Your task to perform on an android device: check android version Image 0: 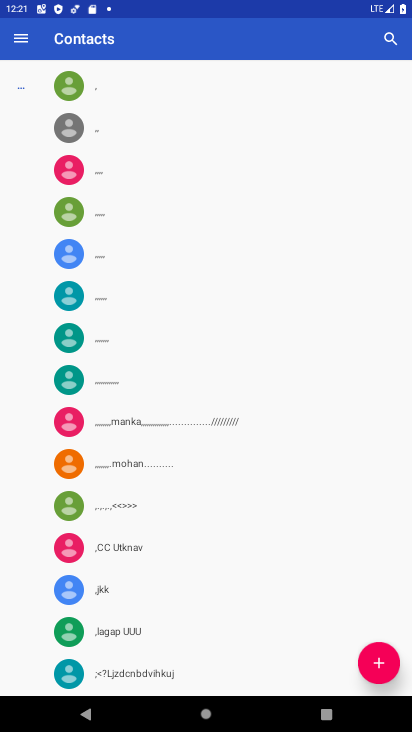
Step 0: press home button
Your task to perform on an android device: check android version Image 1: 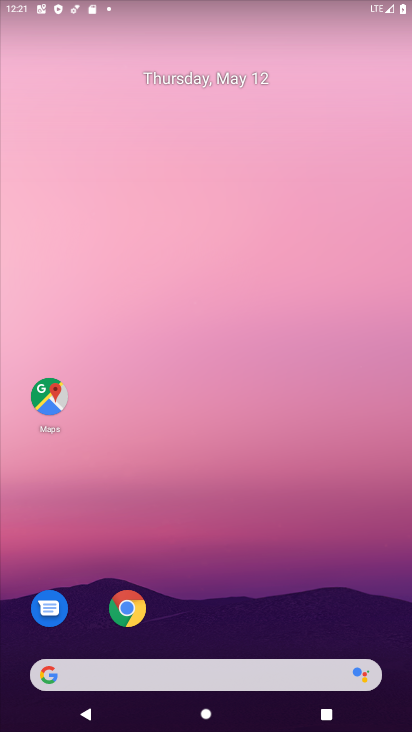
Step 1: drag from (267, 601) to (276, 12)
Your task to perform on an android device: check android version Image 2: 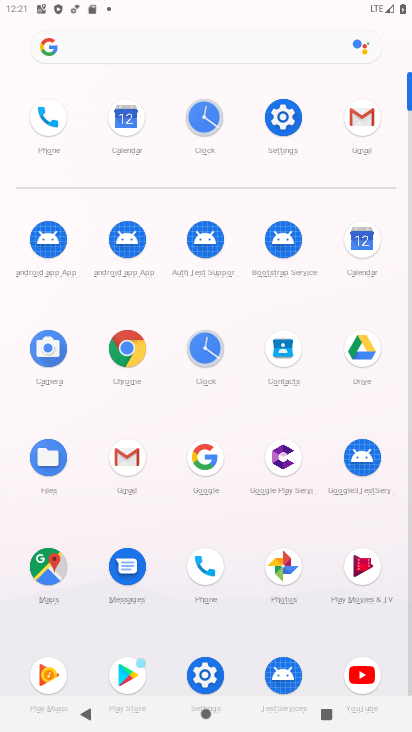
Step 2: click (270, 118)
Your task to perform on an android device: check android version Image 3: 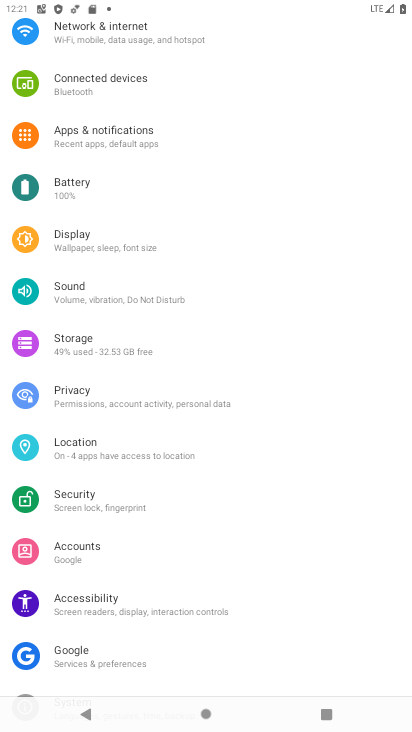
Step 3: drag from (286, 585) to (272, 134)
Your task to perform on an android device: check android version Image 4: 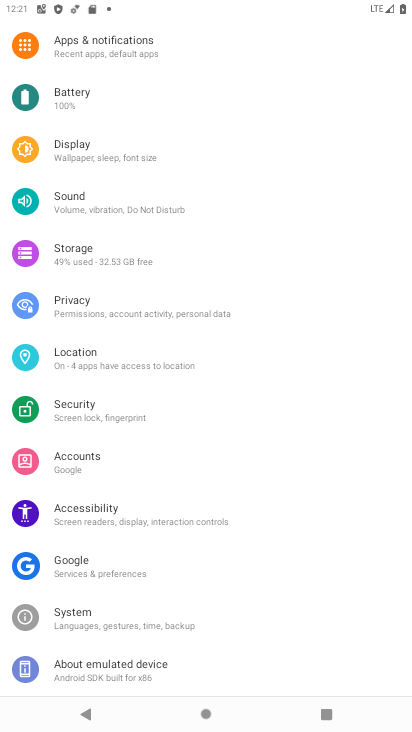
Step 4: click (84, 670)
Your task to perform on an android device: check android version Image 5: 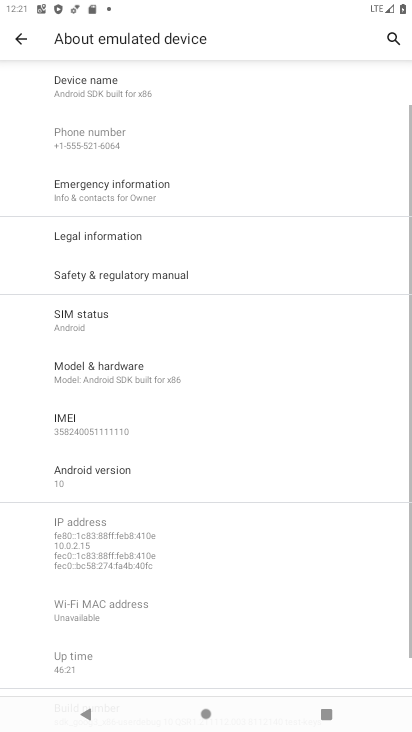
Step 5: click (81, 475)
Your task to perform on an android device: check android version Image 6: 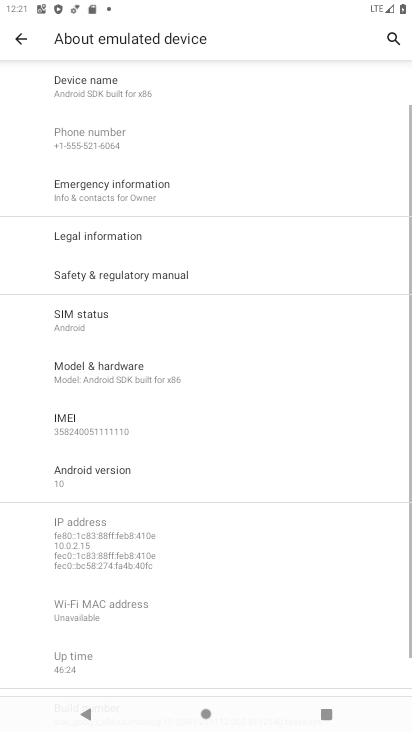
Step 6: click (79, 484)
Your task to perform on an android device: check android version Image 7: 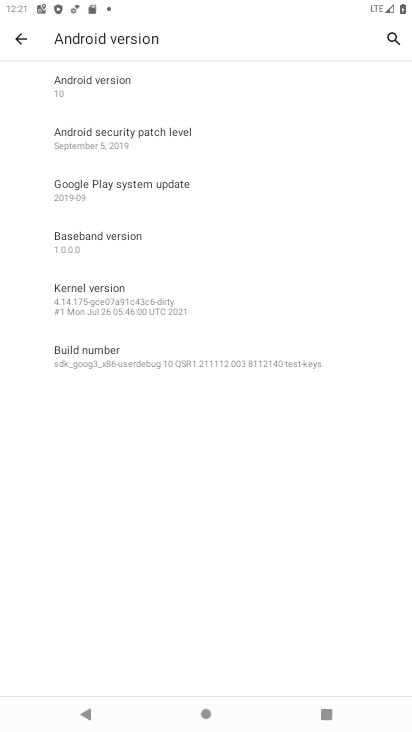
Step 7: task complete